Your task to perform on an android device: set the timer Image 0: 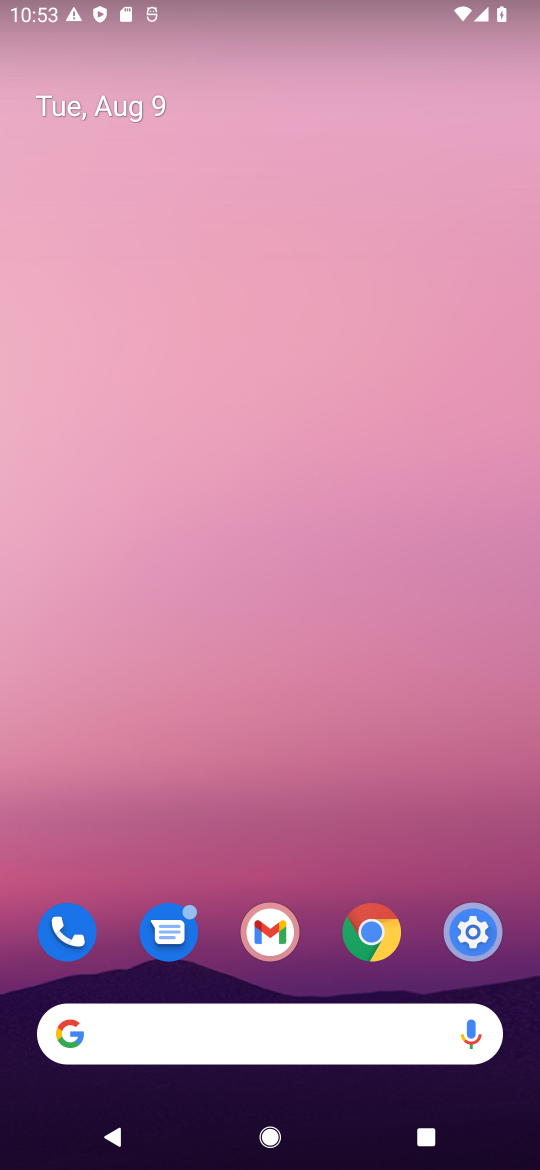
Step 0: drag from (223, 991) to (244, 11)
Your task to perform on an android device: set the timer Image 1: 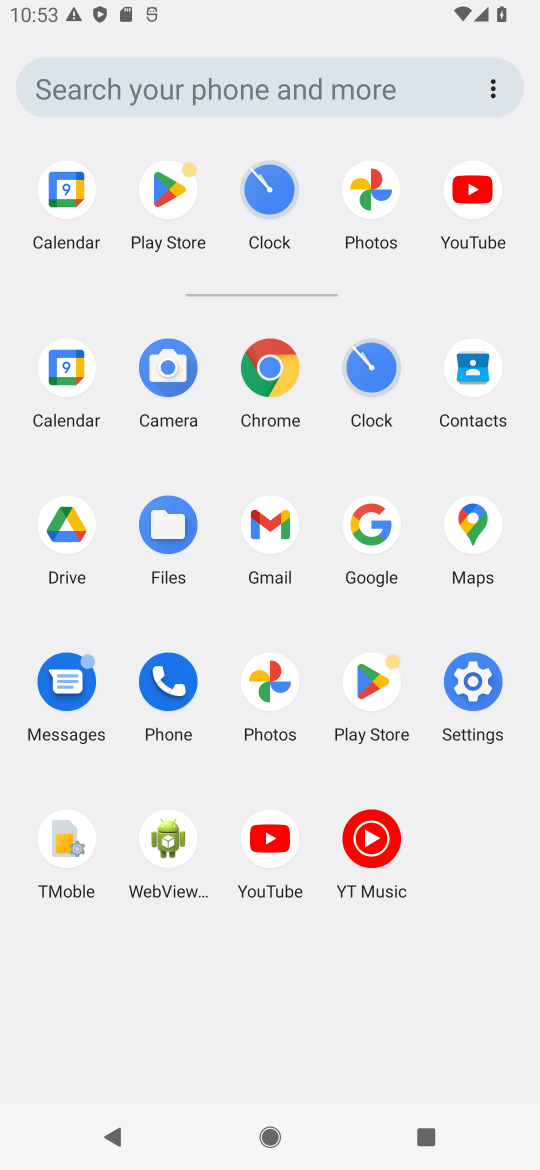
Step 1: click (378, 365)
Your task to perform on an android device: set the timer Image 2: 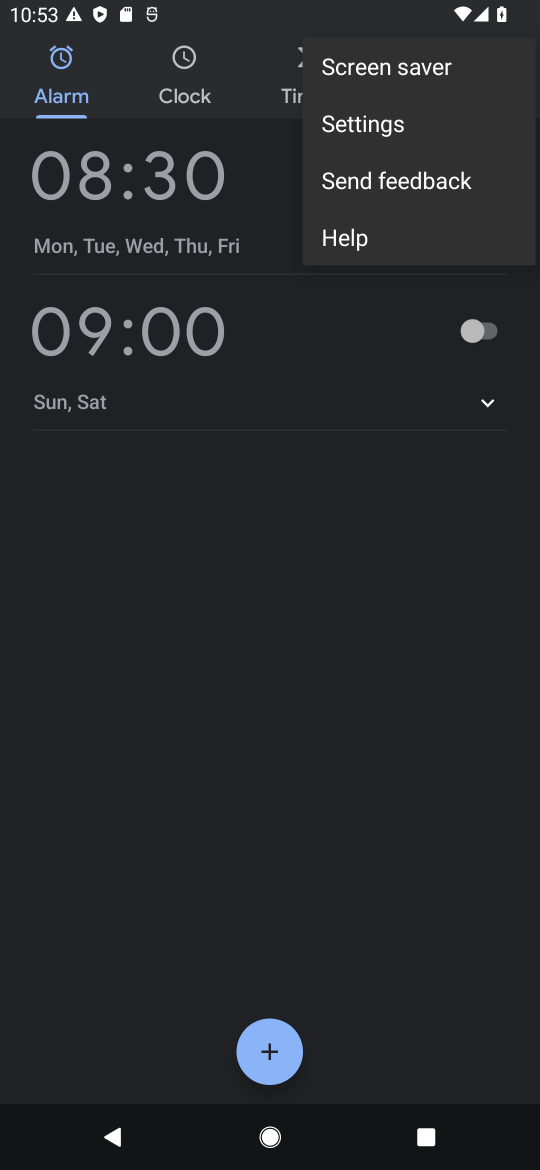
Step 2: click (390, 127)
Your task to perform on an android device: set the timer Image 3: 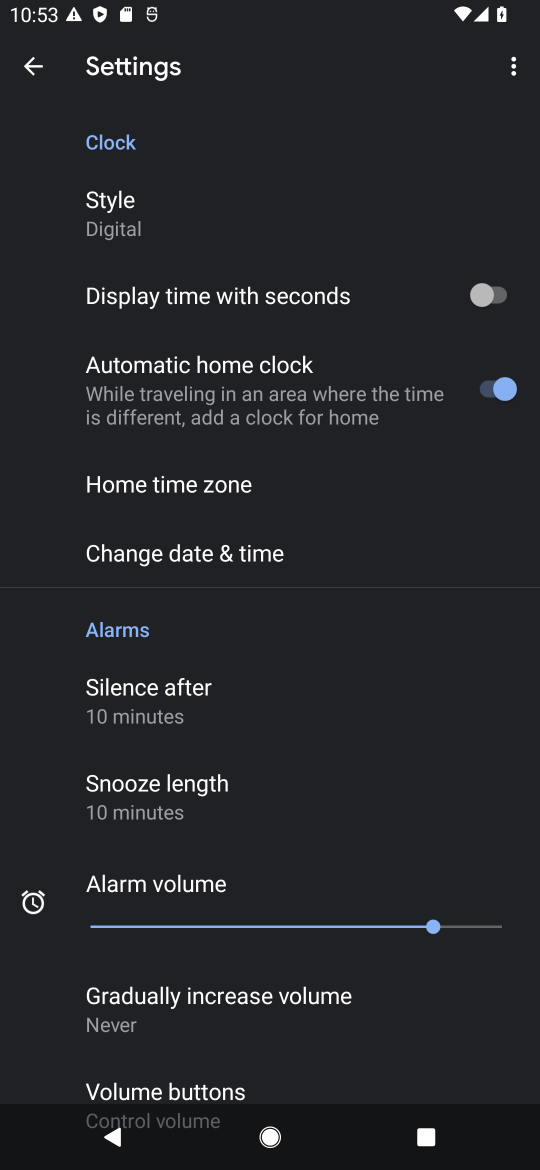
Step 3: drag from (230, 887) to (230, 652)
Your task to perform on an android device: set the timer Image 4: 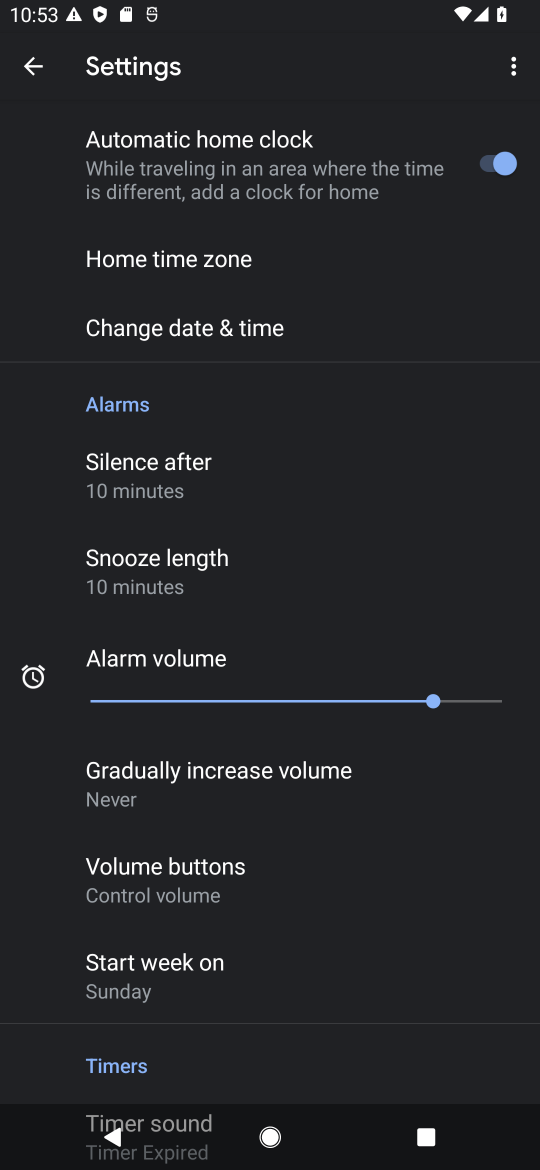
Step 4: click (31, 67)
Your task to perform on an android device: set the timer Image 5: 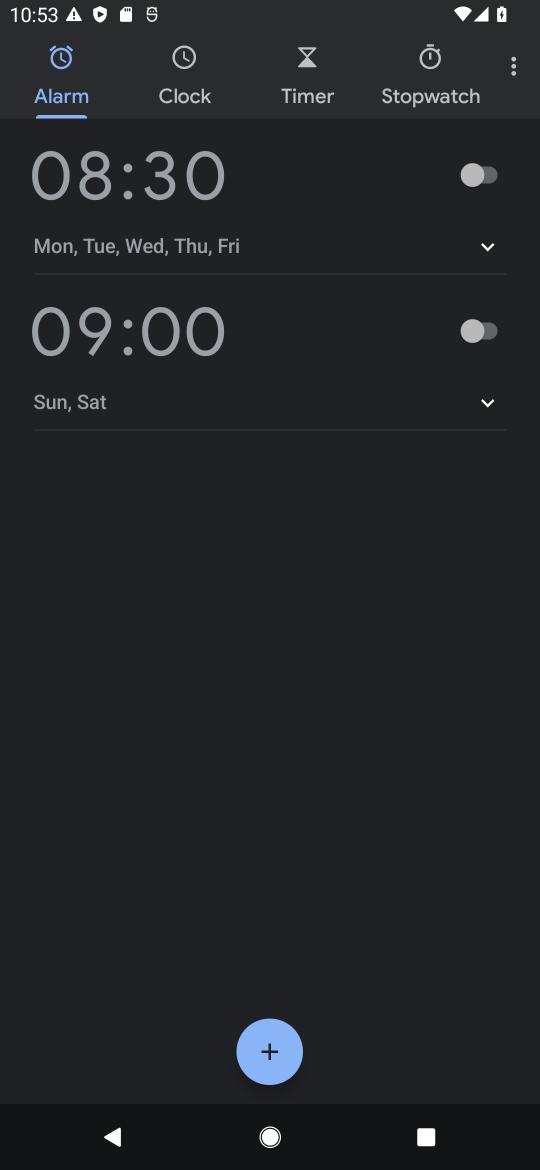
Step 5: click (311, 81)
Your task to perform on an android device: set the timer Image 6: 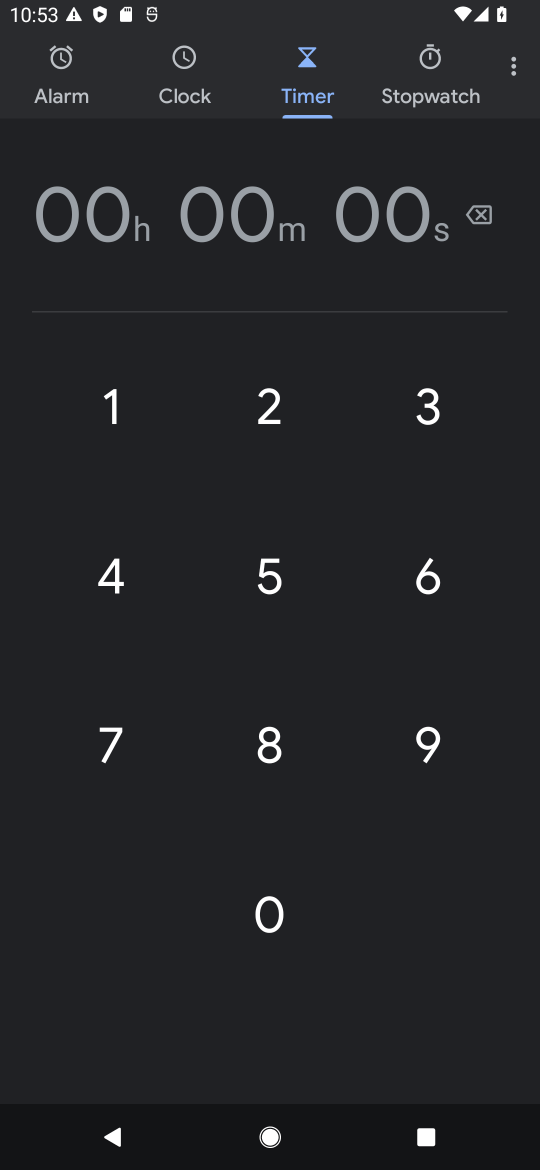
Step 6: click (104, 743)
Your task to perform on an android device: set the timer Image 7: 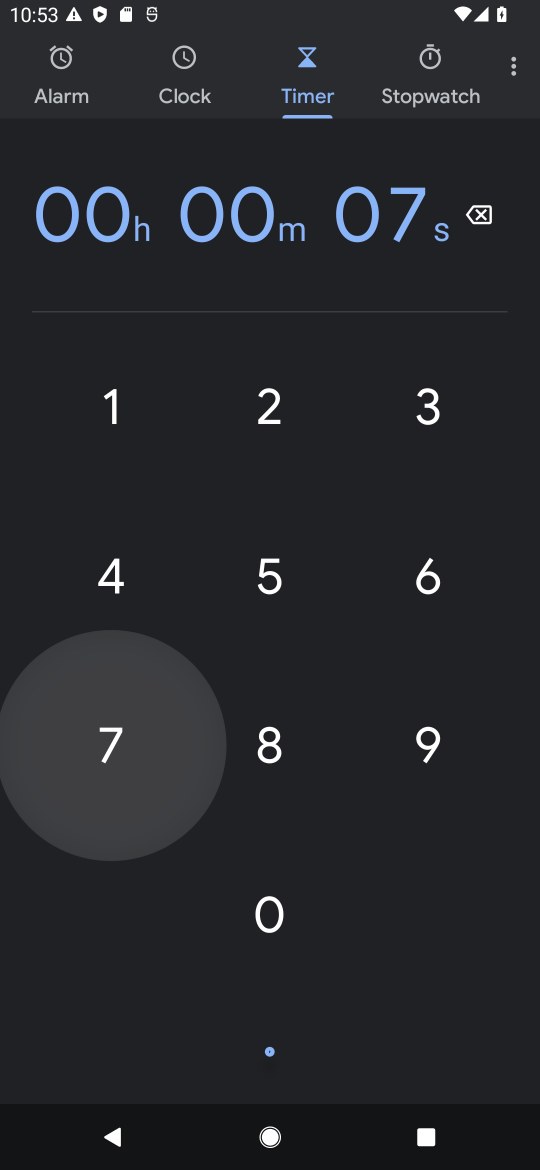
Step 7: click (259, 545)
Your task to perform on an android device: set the timer Image 8: 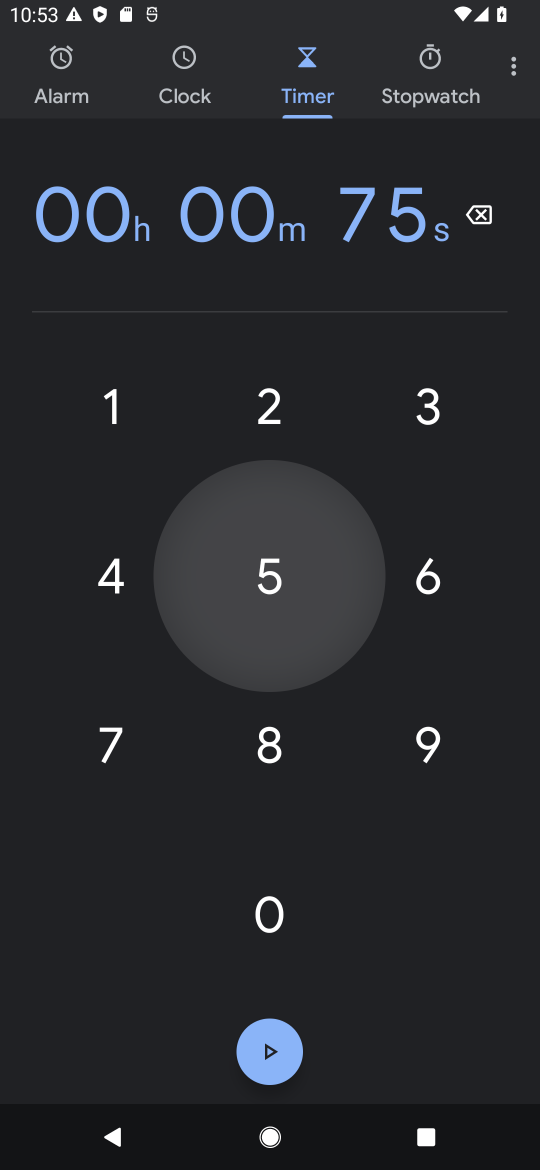
Step 8: click (427, 727)
Your task to perform on an android device: set the timer Image 9: 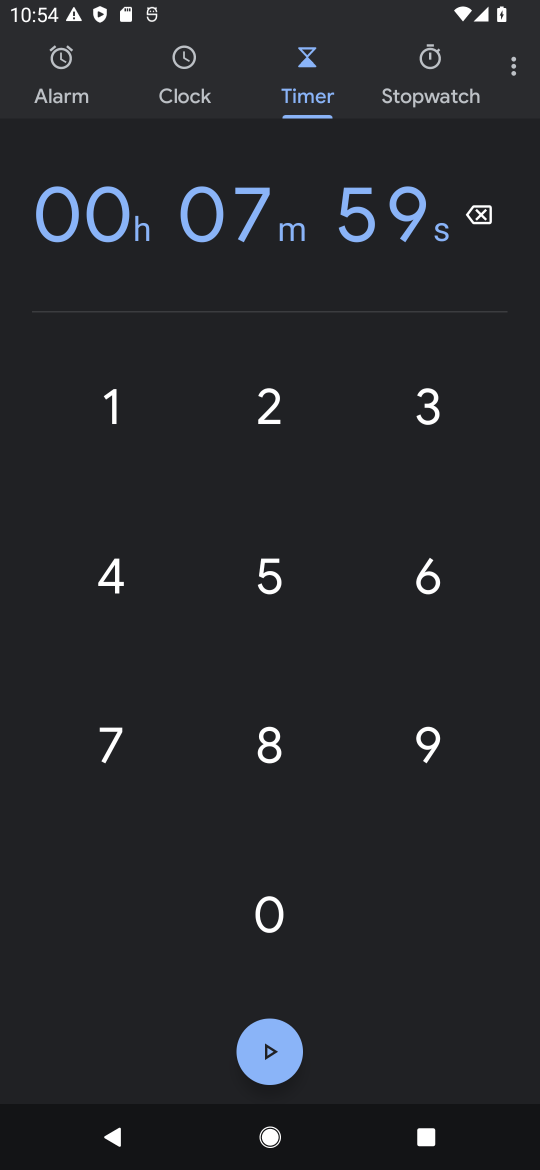
Step 9: click (270, 1065)
Your task to perform on an android device: set the timer Image 10: 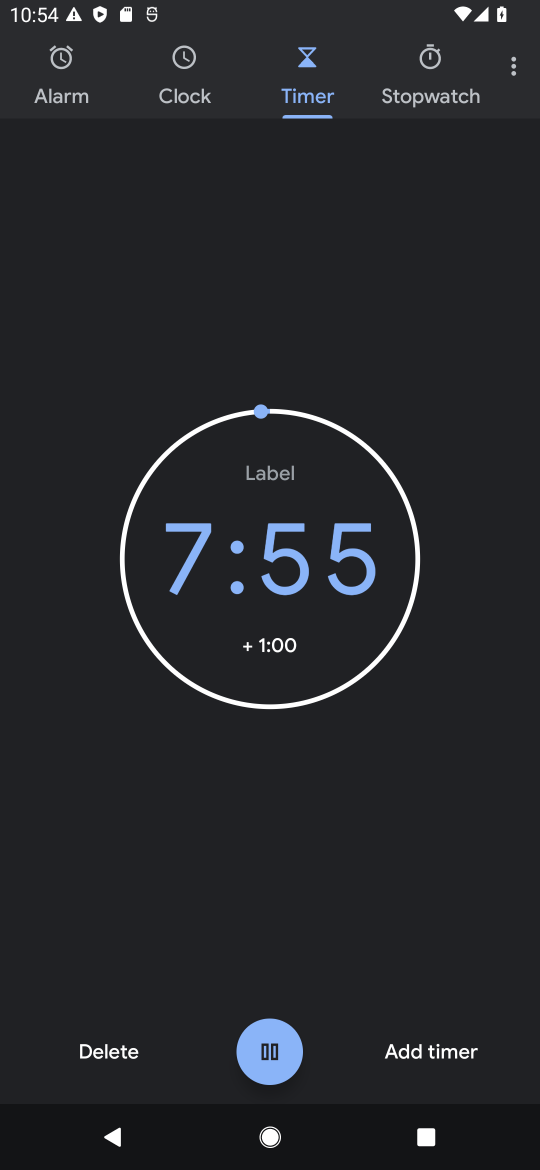
Step 10: task complete